Your task to perform on an android device: Open Yahoo.com Image 0: 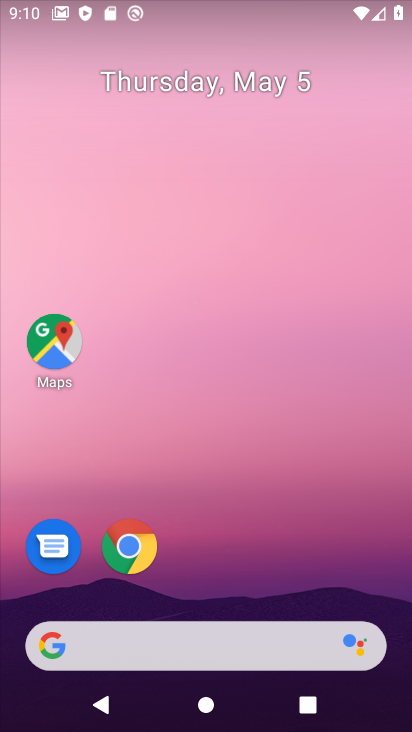
Step 0: drag from (241, 619) to (224, 107)
Your task to perform on an android device: Open Yahoo.com Image 1: 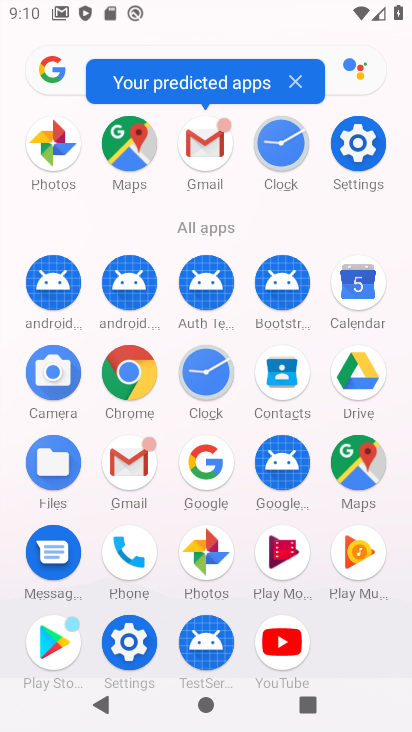
Step 1: click (124, 382)
Your task to perform on an android device: Open Yahoo.com Image 2: 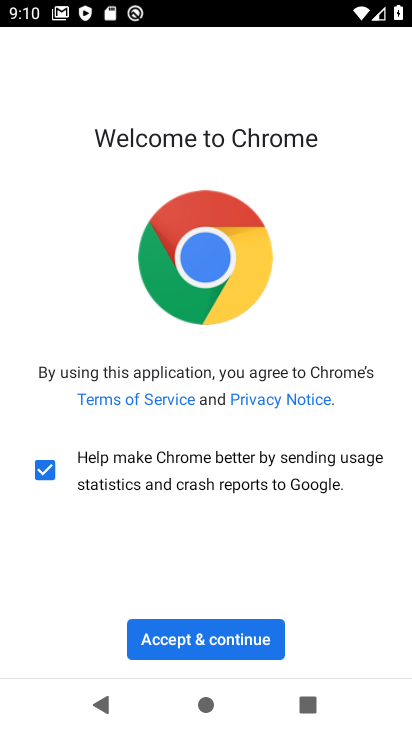
Step 2: click (196, 643)
Your task to perform on an android device: Open Yahoo.com Image 3: 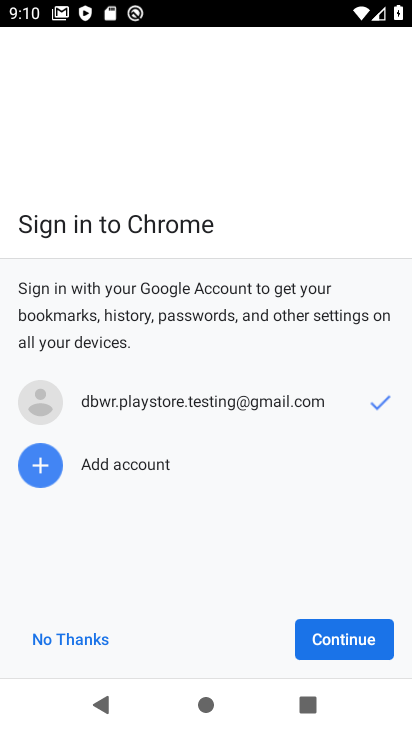
Step 3: click (363, 637)
Your task to perform on an android device: Open Yahoo.com Image 4: 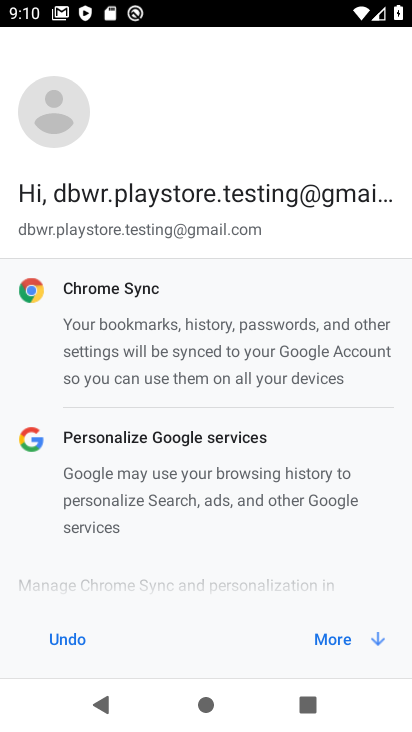
Step 4: click (361, 639)
Your task to perform on an android device: Open Yahoo.com Image 5: 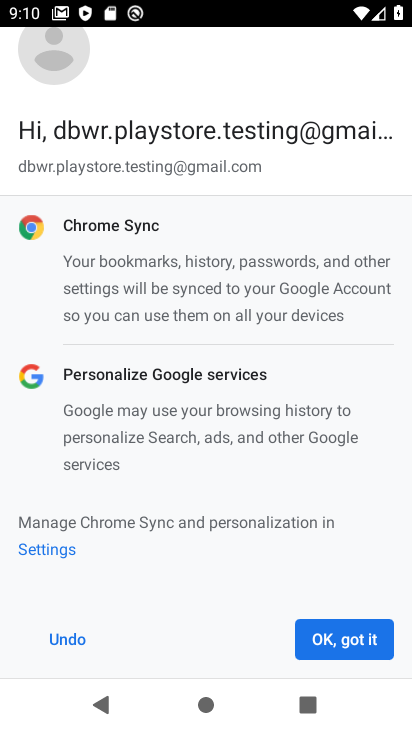
Step 5: click (346, 640)
Your task to perform on an android device: Open Yahoo.com Image 6: 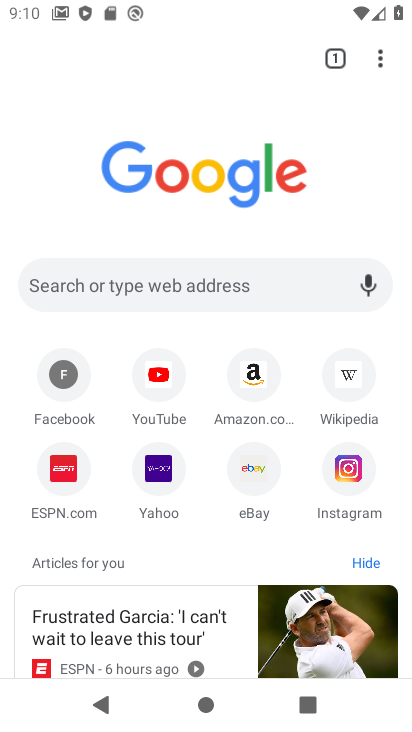
Step 6: click (163, 467)
Your task to perform on an android device: Open Yahoo.com Image 7: 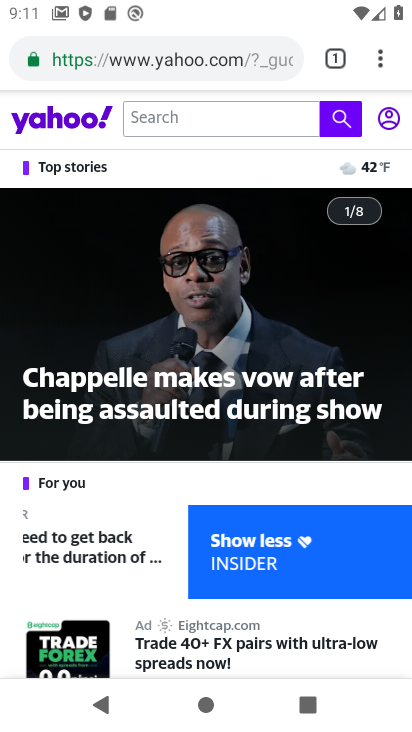
Step 7: task complete